Your task to perform on an android device: Check the weather Image 0: 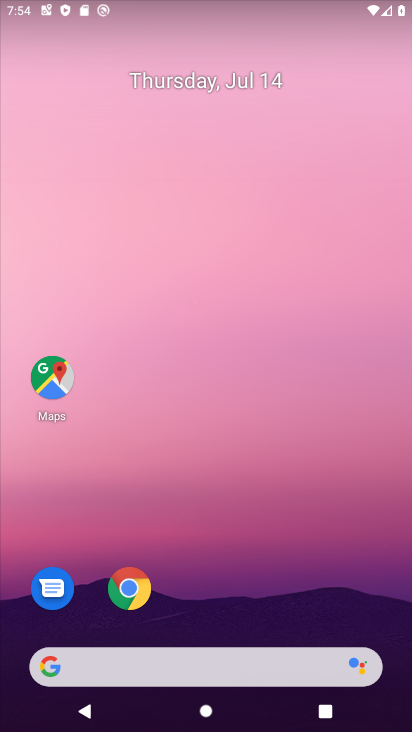
Step 0: drag from (360, 615) to (104, 29)
Your task to perform on an android device: Check the weather Image 1: 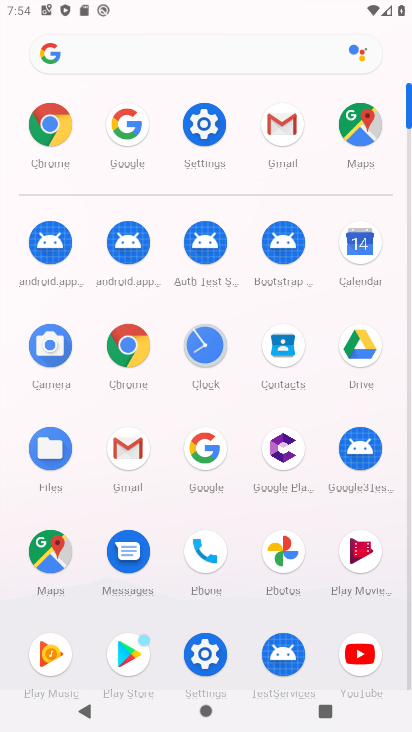
Step 1: click (200, 450)
Your task to perform on an android device: Check the weather Image 2: 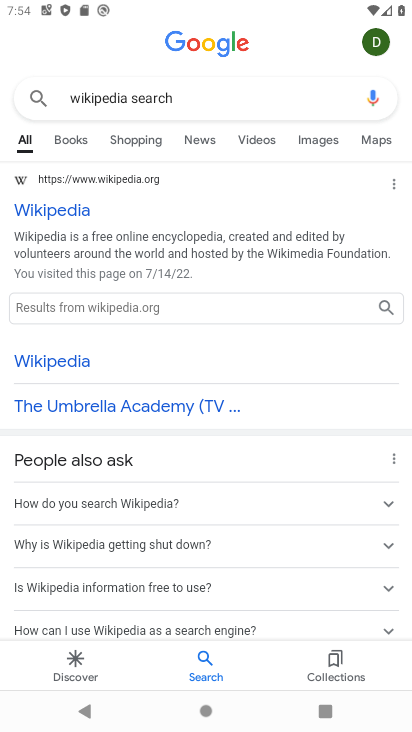
Step 2: press back button
Your task to perform on an android device: Check the weather Image 3: 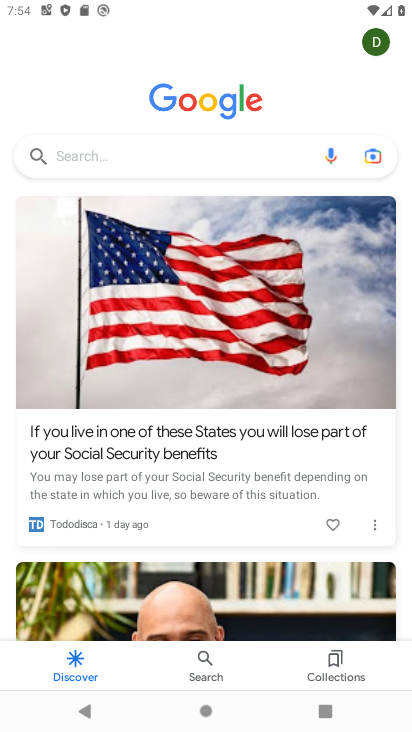
Step 3: click (112, 146)
Your task to perform on an android device: Check the weather Image 4: 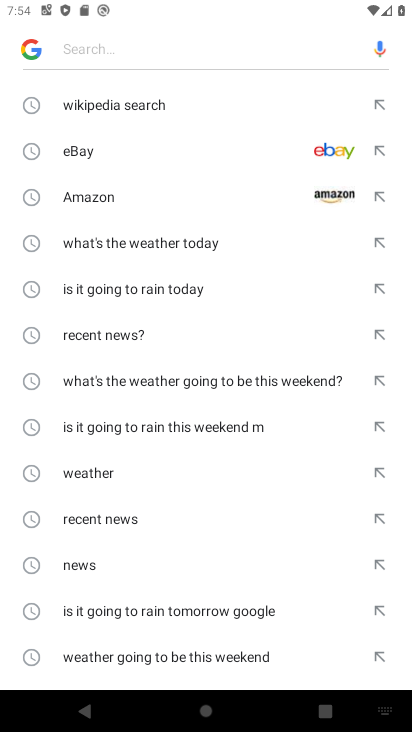
Step 4: click (109, 475)
Your task to perform on an android device: Check the weather Image 5: 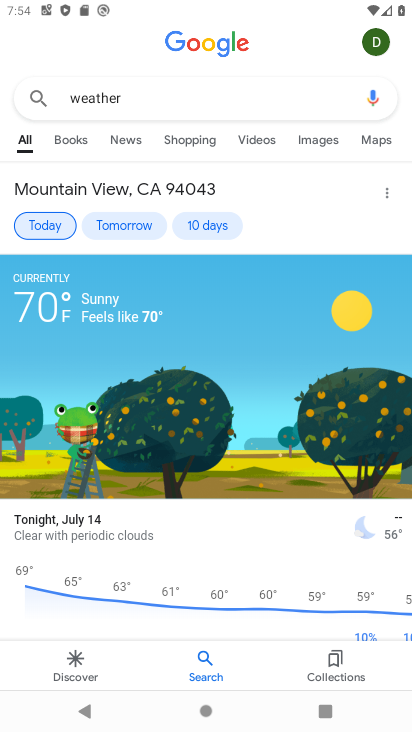
Step 5: task complete